Your task to perform on an android device: stop showing notifications on the lock screen Image 0: 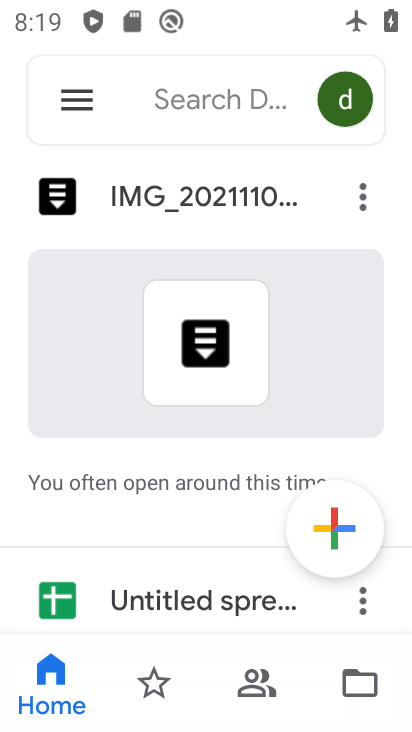
Step 0: press home button
Your task to perform on an android device: stop showing notifications on the lock screen Image 1: 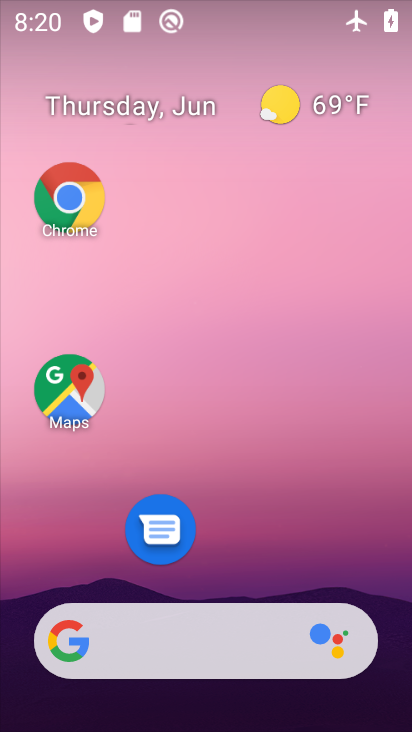
Step 1: drag from (207, 588) to (258, 345)
Your task to perform on an android device: stop showing notifications on the lock screen Image 2: 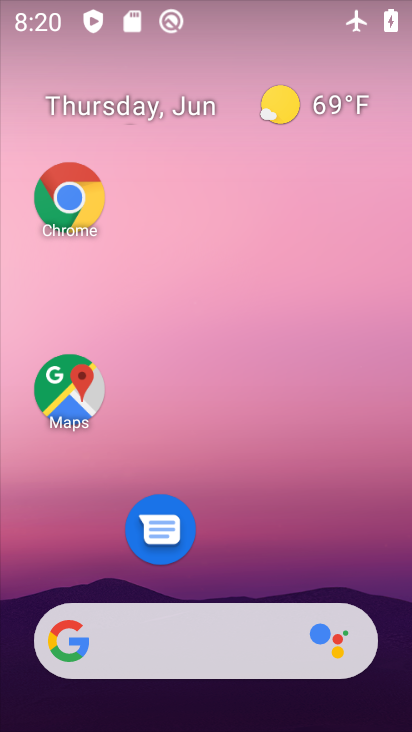
Step 2: drag from (222, 593) to (310, 5)
Your task to perform on an android device: stop showing notifications on the lock screen Image 3: 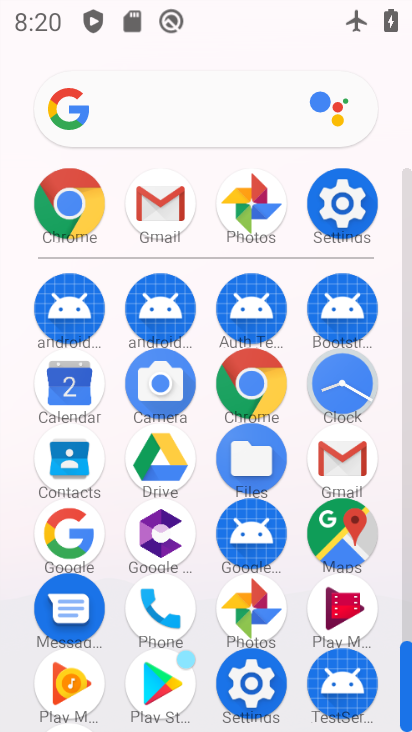
Step 3: click (353, 216)
Your task to perform on an android device: stop showing notifications on the lock screen Image 4: 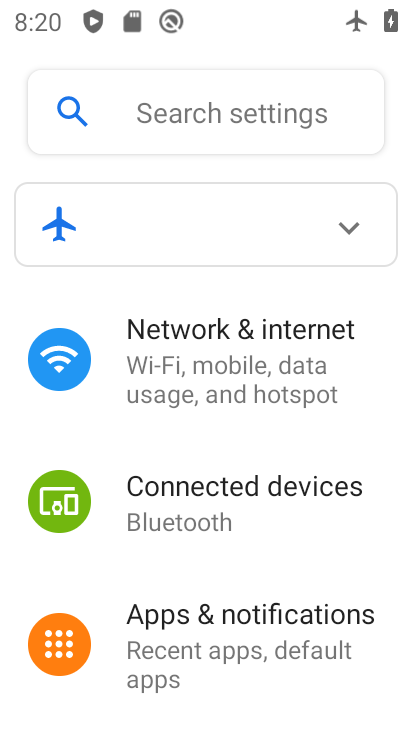
Step 4: click (222, 615)
Your task to perform on an android device: stop showing notifications on the lock screen Image 5: 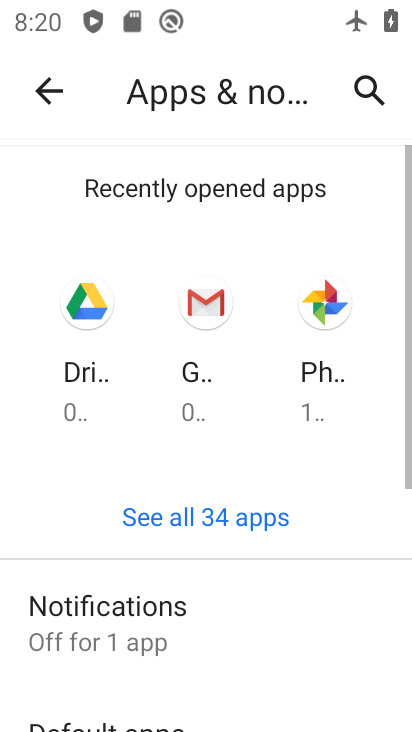
Step 5: click (222, 615)
Your task to perform on an android device: stop showing notifications on the lock screen Image 6: 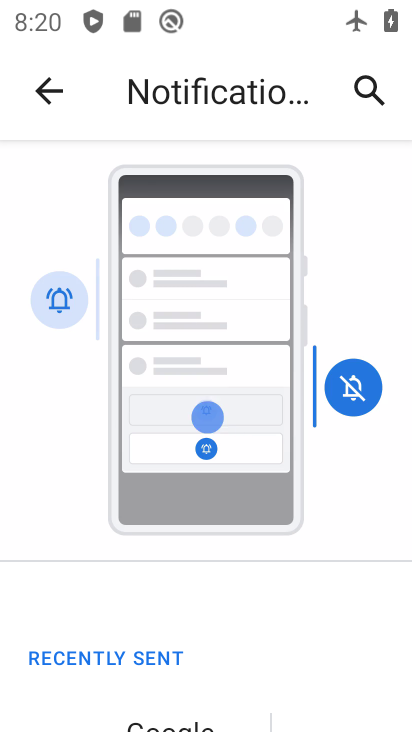
Step 6: drag from (222, 615) to (215, 116)
Your task to perform on an android device: stop showing notifications on the lock screen Image 7: 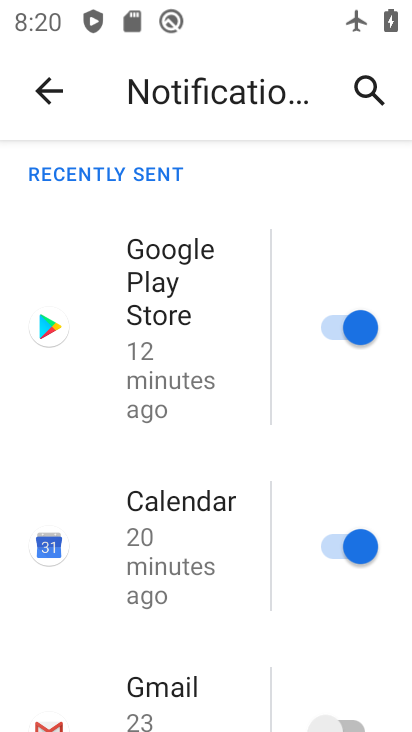
Step 7: drag from (202, 487) to (166, 199)
Your task to perform on an android device: stop showing notifications on the lock screen Image 8: 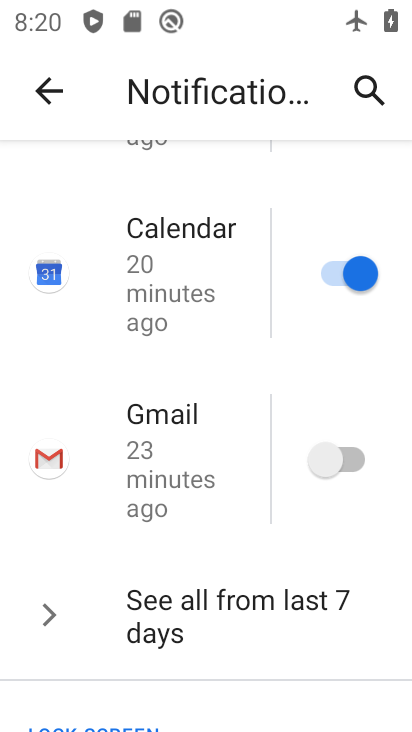
Step 8: drag from (342, 703) to (276, 294)
Your task to perform on an android device: stop showing notifications on the lock screen Image 9: 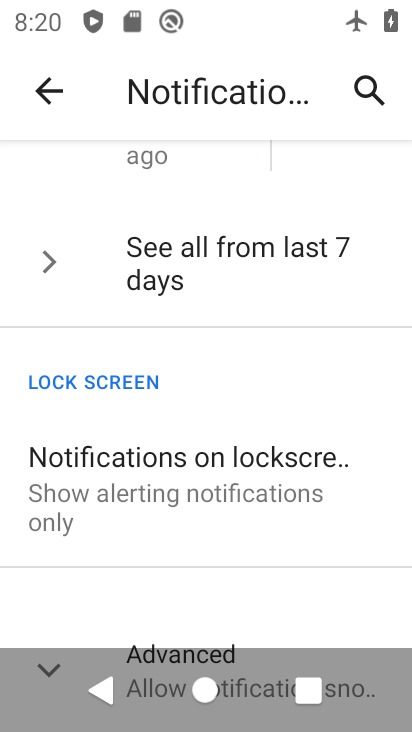
Step 9: click (218, 467)
Your task to perform on an android device: stop showing notifications on the lock screen Image 10: 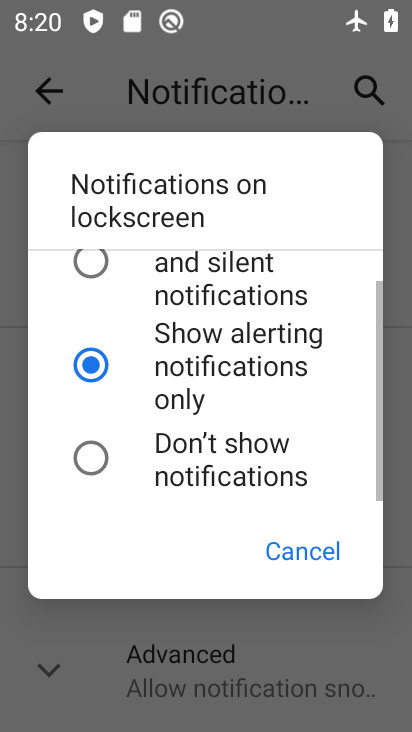
Step 10: click (218, 467)
Your task to perform on an android device: stop showing notifications on the lock screen Image 11: 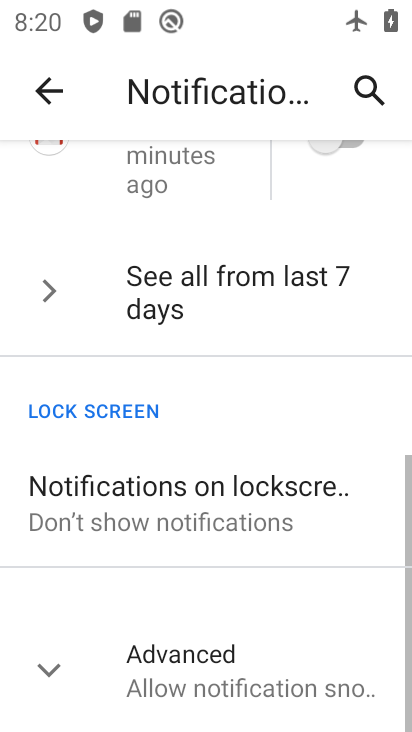
Step 11: task complete